Your task to perform on an android device: Show the shopping cart on walmart. Add "razer blackwidow" to the cart on walmart, then select checkout. Image 0: 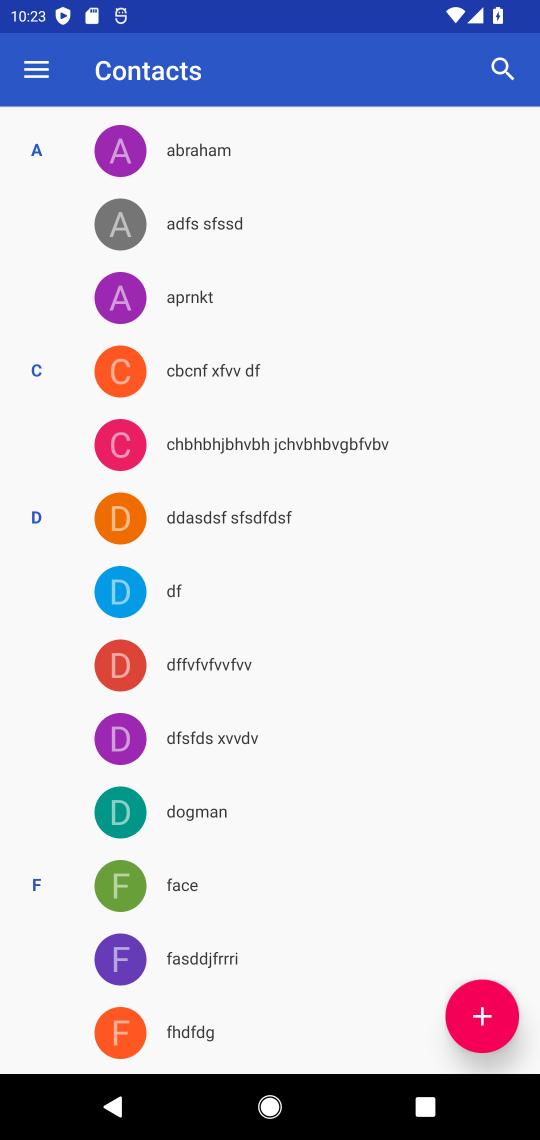
Step 0: press home button
Your task to perform on an android device: Show the shopping cart on walmart. Add "razer blackwidow" to the cart on walmart, then select checkout. Image 1: 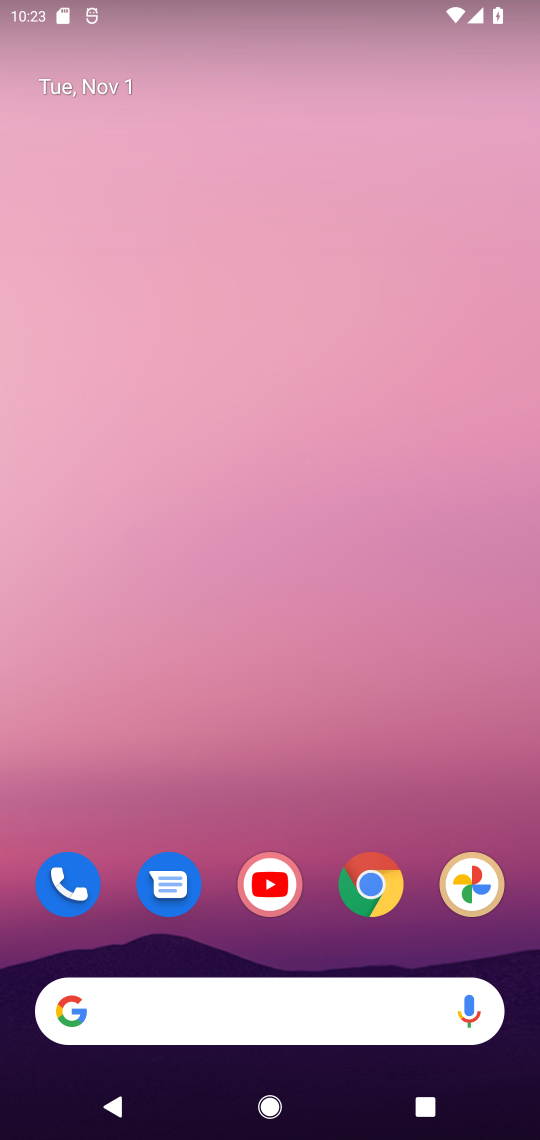
Step 1: click (366, 882)
Your task to perform on an android device: Show the shopping cart on walmart. Add "razer blackwidow" to the cart on walmart, then select checkout. Image 2: 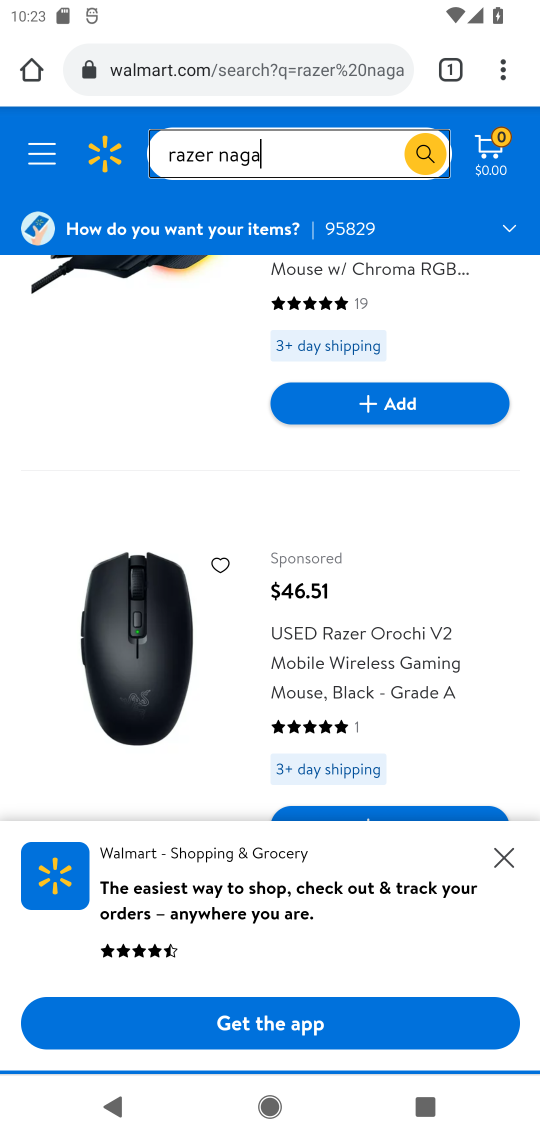
Step 2: click (254, 71)
Your task to perform on an android device: Show the shopping cart on walmart. Add "razer blackwidow" to the cart on walmart, then select checkout. Image 3: 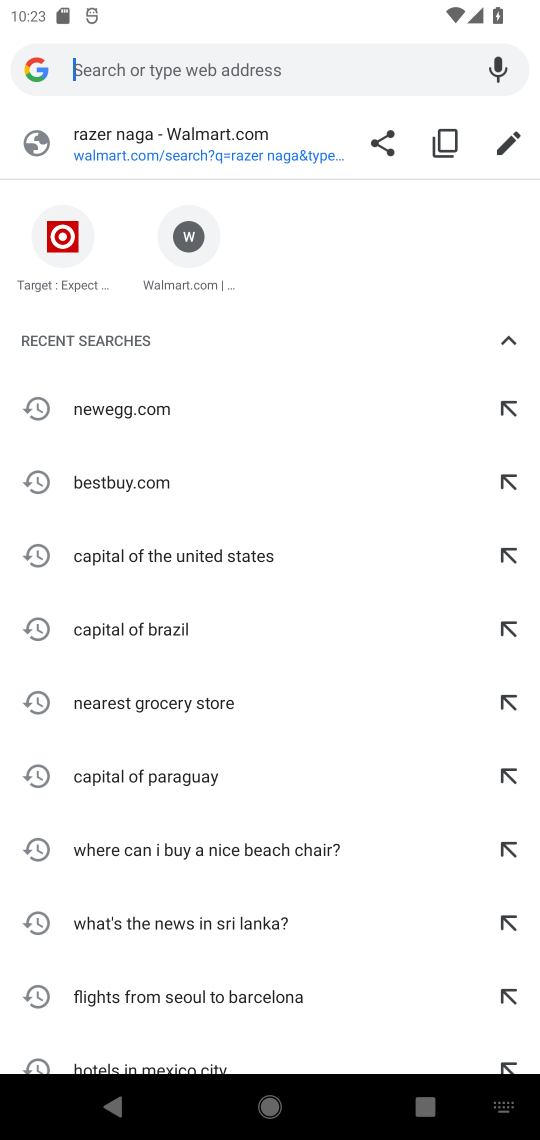
Step 3: click (189, 241)
Your task to perform on an android device: Show the shopping cart on walmart. Add "razer blackwidow" to the cart on walmart, then select checkout. Image 4: 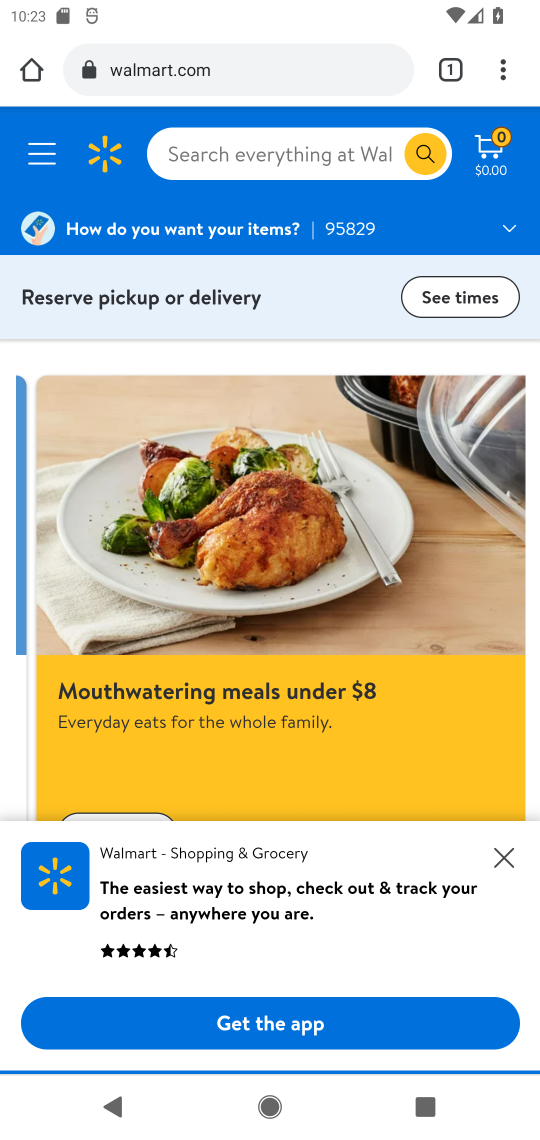
Step 4: click (503, 158)
Your task to perform on an android device: Show the shopping cart on walmart. Add "razer blackwidow" to the cart on walmart, then select checkout. Image 5: 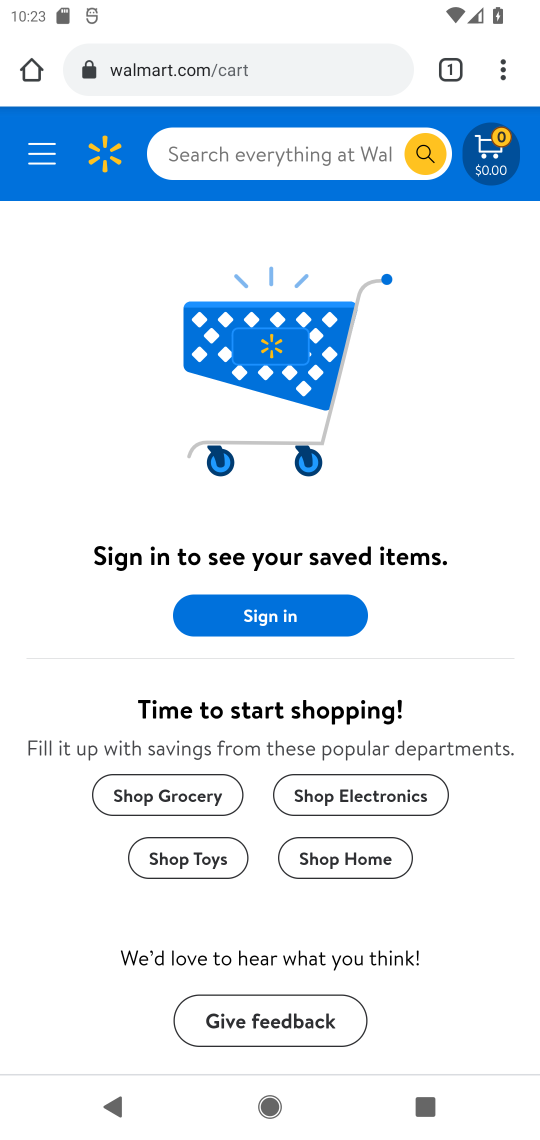
Step 5: click (224, 150)
Your task to perform on an android device: Show the shopping cart on walmart. Add "razer blackwidow" to the cart on walmart, then select checkout. Image 6: 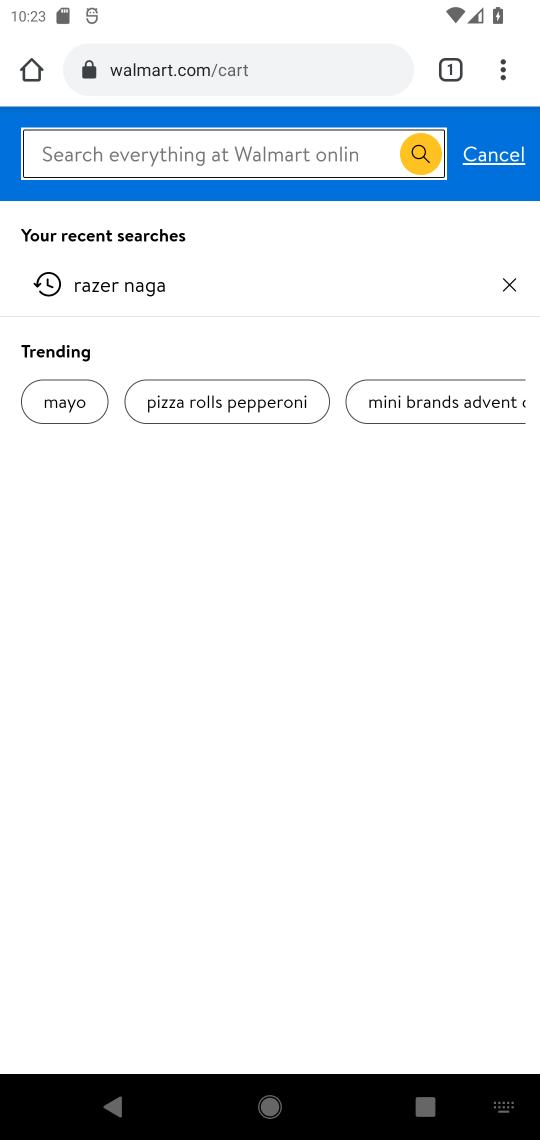
Step 6: type "razer blackwidow"
Your task to perform on an android device: Show the shopping cart on walmart. Add "razer blackwidow" to the cart on walmart, then select checkout. Image 7: 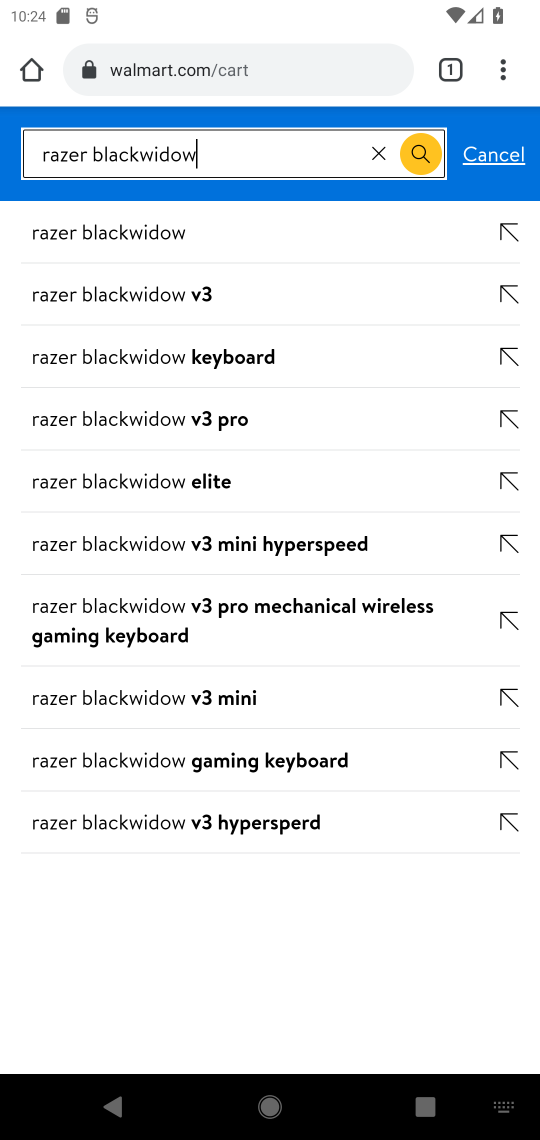
Step 7: click (99, 243)
Your task to perform on an android device: Show the shopping cart on walmart. Add "razer blackwidow" to the cart on walmart, then select checkout. Image 8: 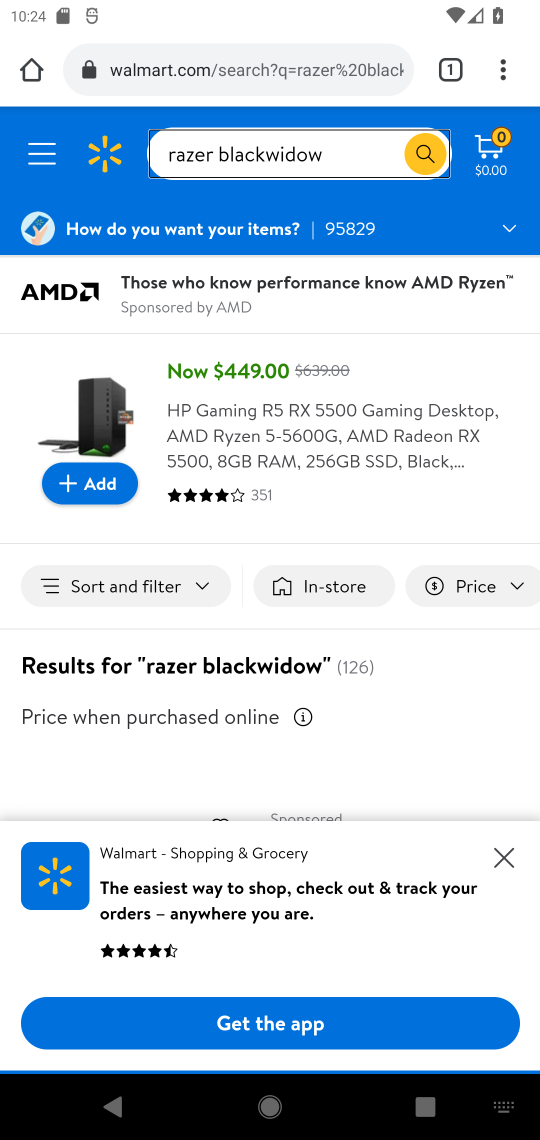
Step 8: drag from (310, 749) to (264, 377)
Your task to perform on an android device: Show the shopping cart on walmart. Add "razer blackwidow" to the cart on walmart, then select checkout. Image 9: 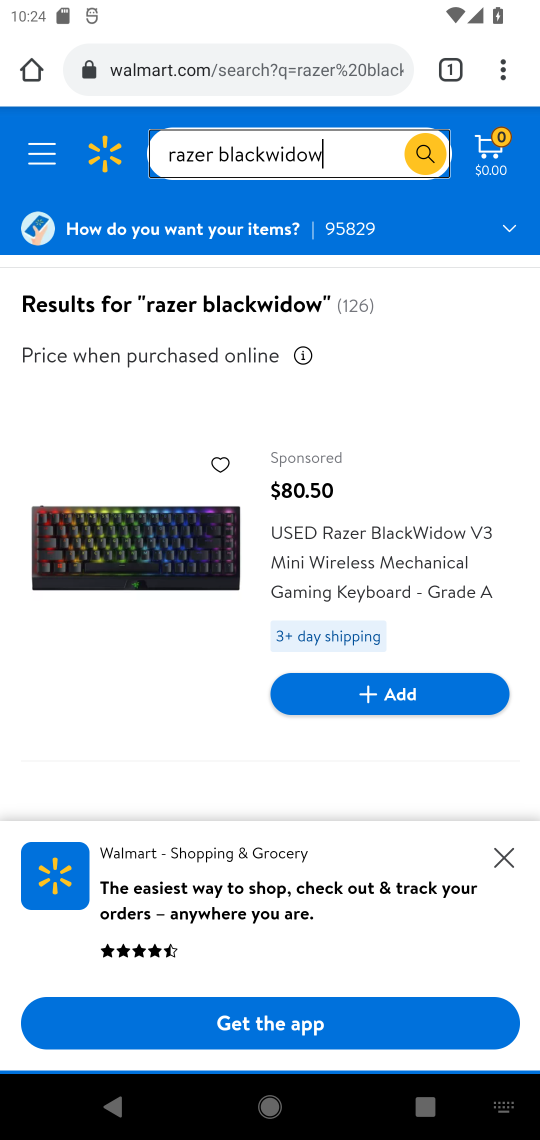
Step 9: click (370, 692)
Your task to perform on an android device: Show the shopping cart on walmart. Add "razer blackwidow" to the cart on walmart, then select checkout. Image 10: 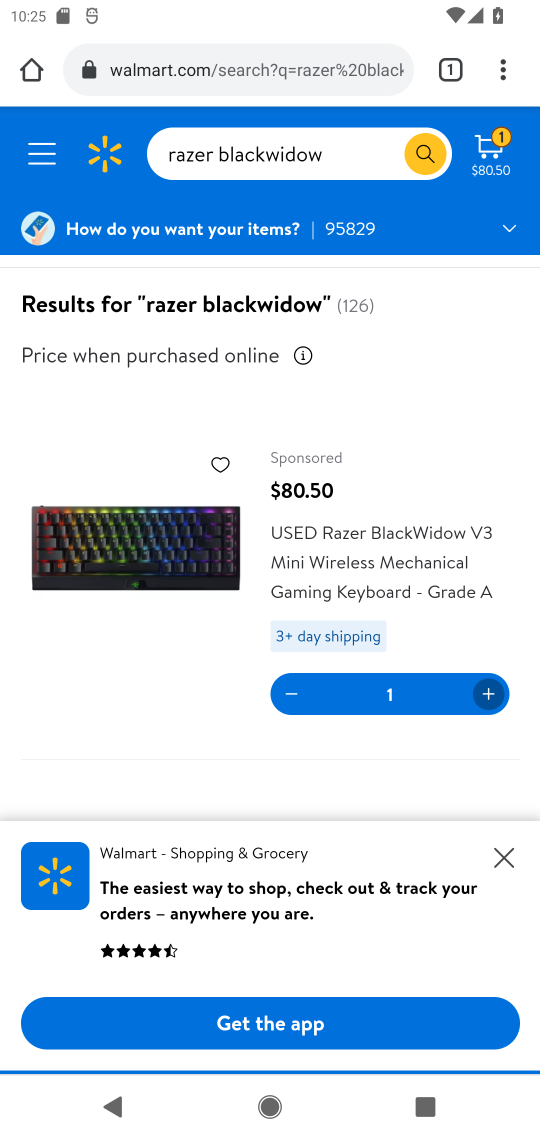
Step 10: click (486, 144)
Your task to perform on an android device: Show the shopping cart on walmart. Add "razer blackwidow" to the cart on walmart, then select checkout. Image 11: 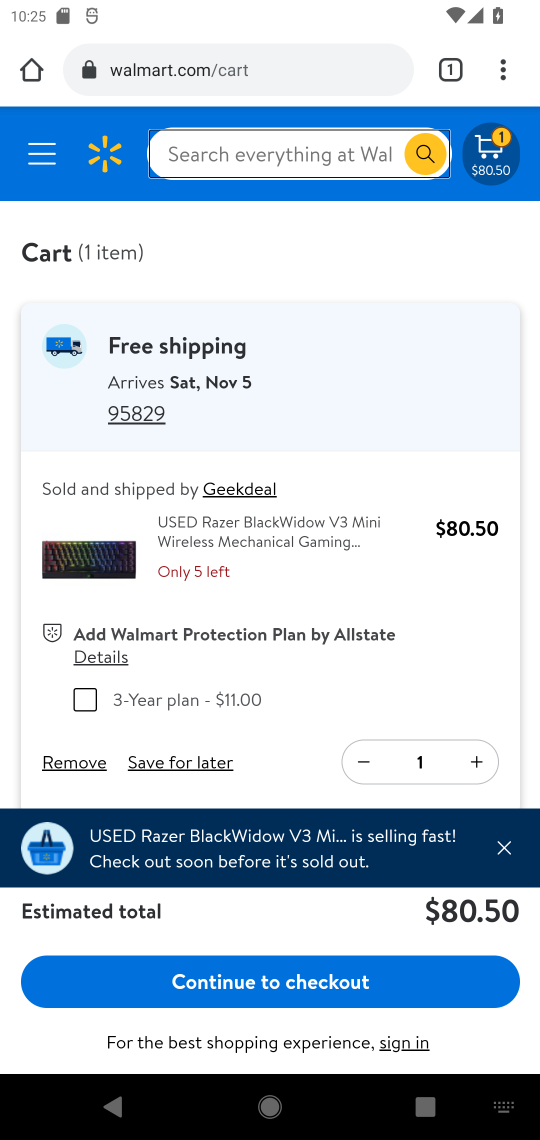
Step 11: click (253, 994)
Your task to perform on an android device: Show the shopping cart on walmart. Add "razer blackwidow" to the cart on walmart, then select checkout. Image 12: 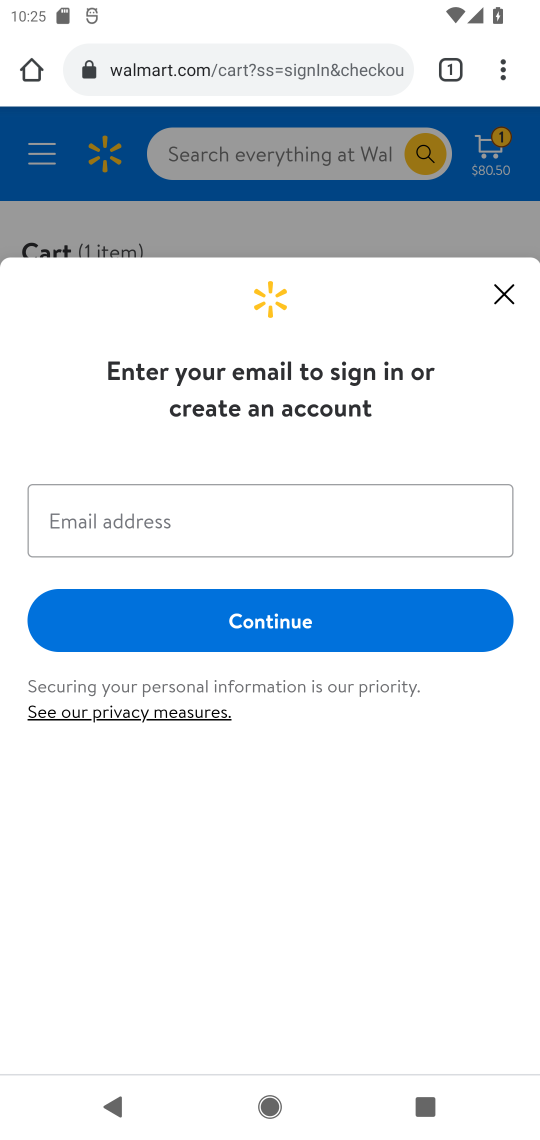
Step 12: click (506, 292)
Your task to perform on an android device: Show the shopping cart on walmart. Add "razer blackwidow" to the cart on walmart, then select checkout. Image 13: 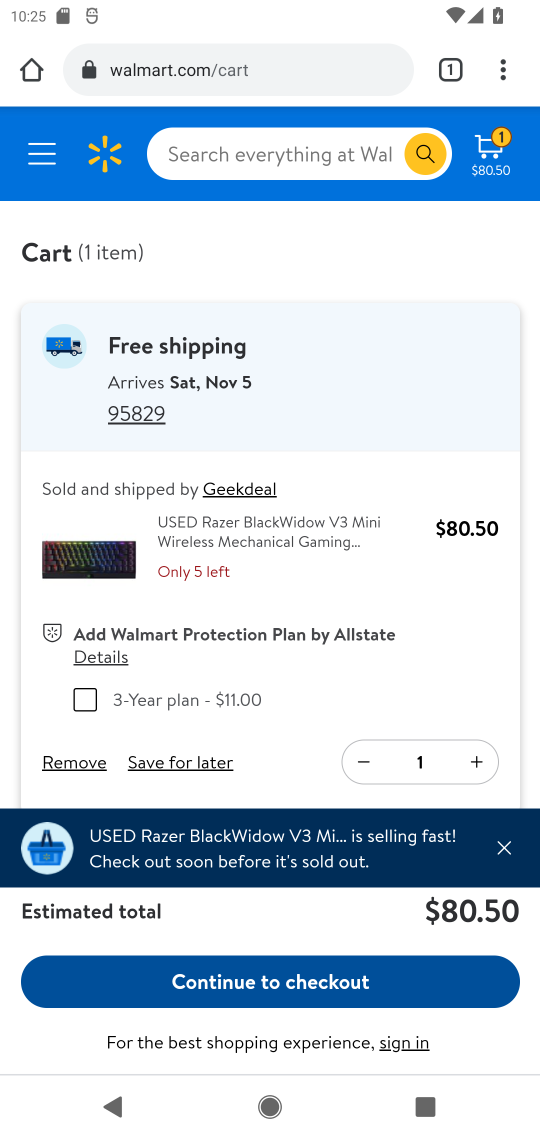
Step 13: drag from (270, 759) to (269, 342)
Your task to perform on an android device: Show the shopping cart on walmart. Add "razer blackwidow" to the cart on walmart, then select checkout. Image 14: 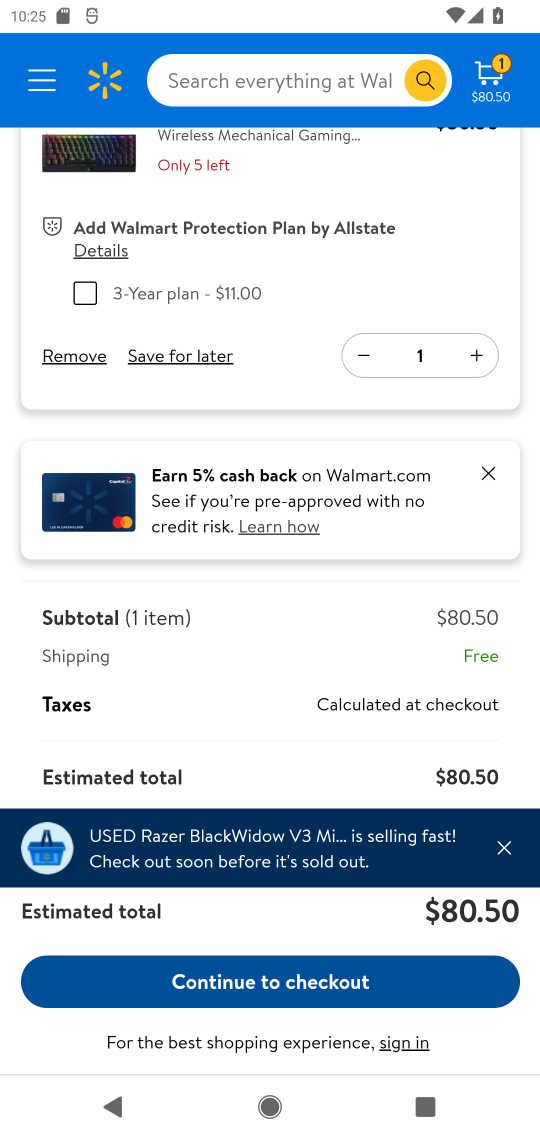
Step 14: click (262, 993)
Your task to perform on an android device: Show the shopping cart on walmart. Add "razer blackwidow" to the cart on walmart, then select checkout. Image 15: 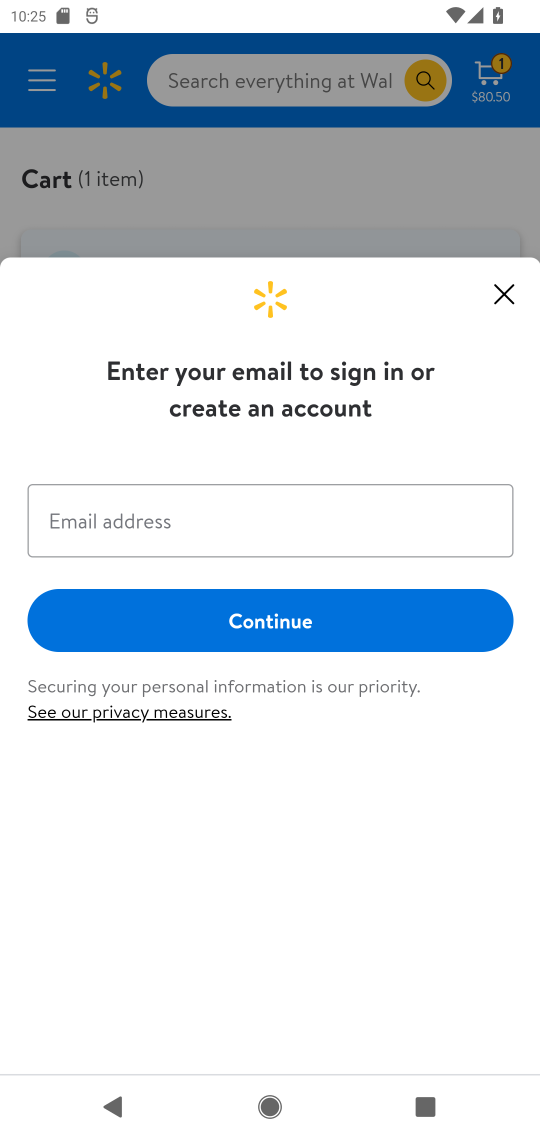
Step 15: task complete